Your task to perform on an android device: manage bookmarks in the chrome app Image 0: 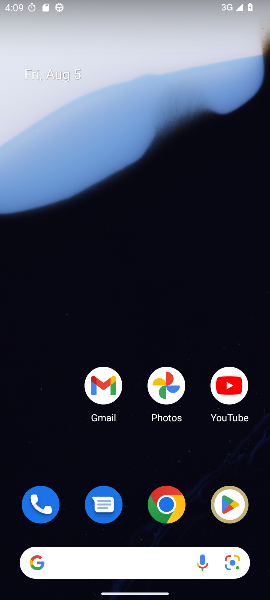
Step 0: click (157, 503)
Your task to perform on an android device: manage bookmarks in the chrome app Image 1: 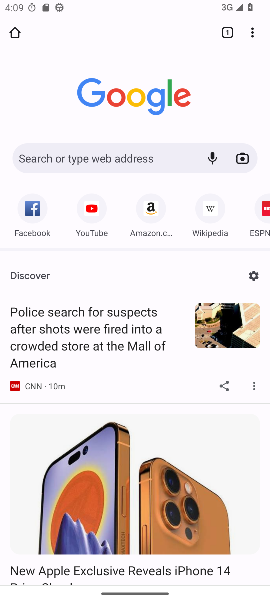
Step 1: click (253, 32)
Your task to perform on an android device: manage bookmarks in the chrome app Image 2: 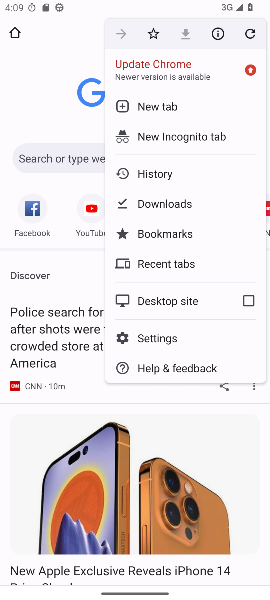
Step 2: click (148, 233)
Your task to perform on an android device: manage bookmarks in the chrome app Image 3: 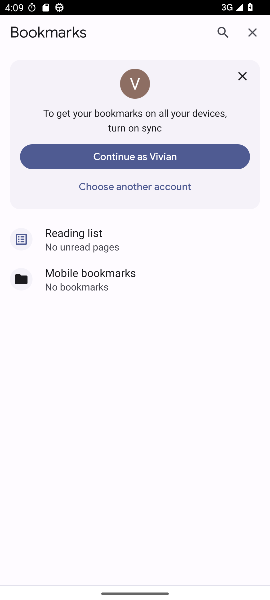
Step 3: task complete